Your task to perform on an android device: check google app version Image 0: 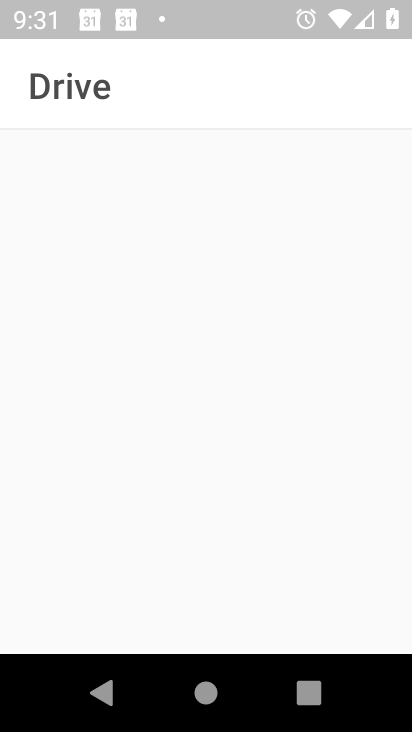
Step 0: press back button
Your task to perform on an android device: check google app version Image 1: 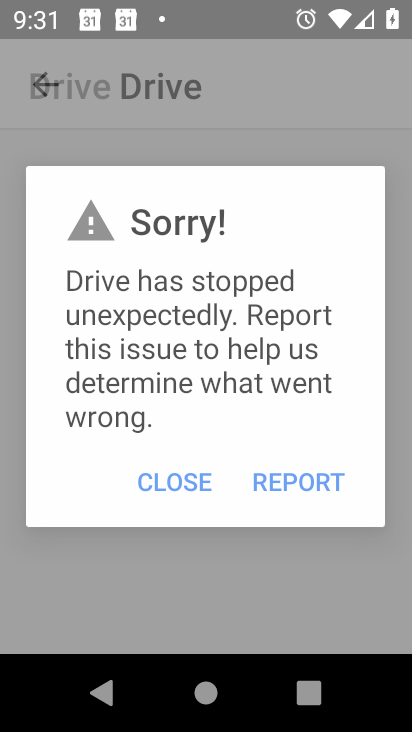
Step 1: press back button
Your task to perform on an android device: check google app version Image 2: 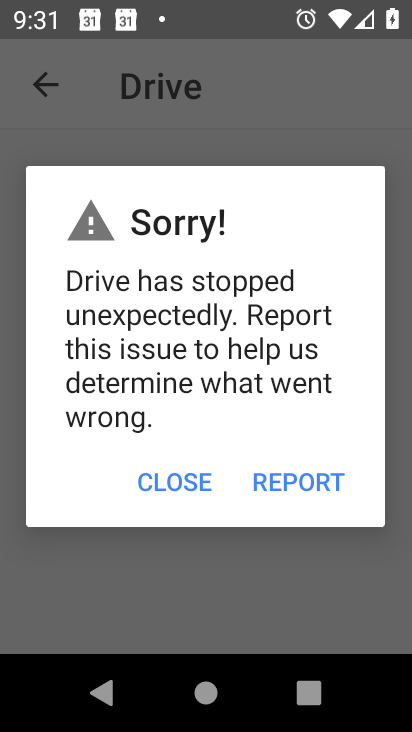
Step 2: click (179, 477)
Your task to perform on an android device: check google app version Image 3: 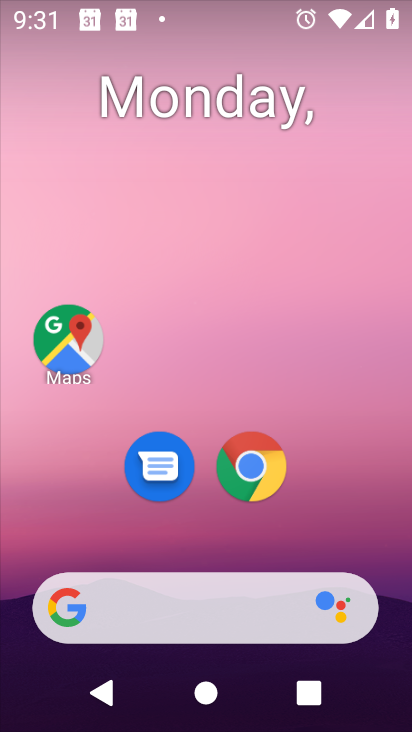
Step 3: drag from (388, 643) to (187, 15)
Your task to perform on an android device: check google app version Image 4: 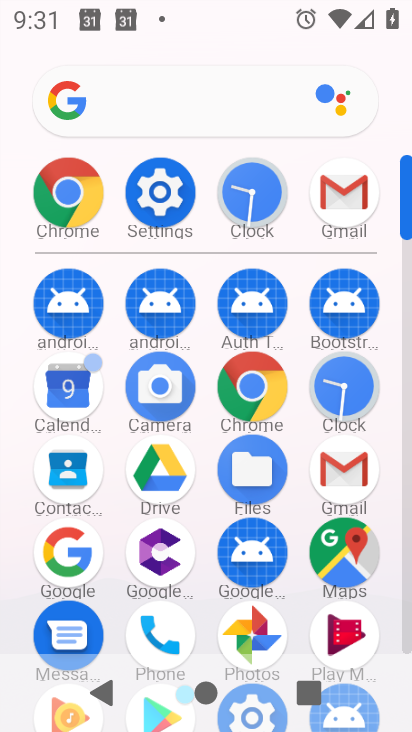
Step 4: drag from (200, 609) to (156, 140)
Your task to perform on an android device: check google app version Image 5: 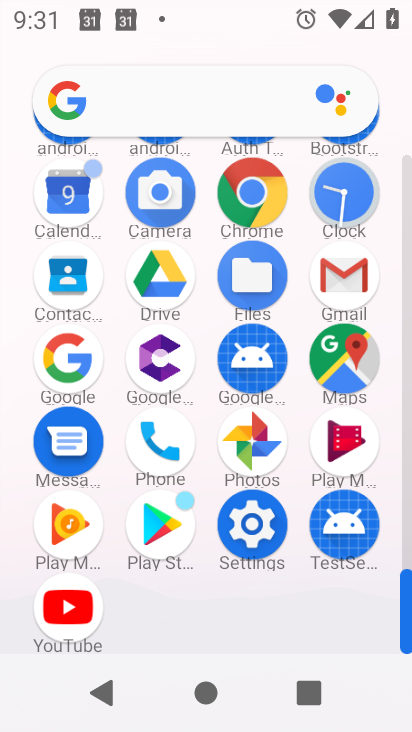
Step 5: drag from (198, 435) to (159, 100)
Your task to perform on an android device: check google app version Image 6: 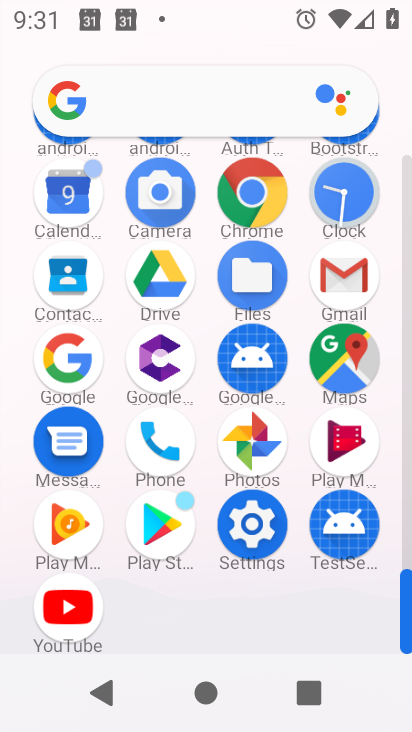
Step 6: click (65, 352)
Your task to perform on an android device: check google app version Image 7: 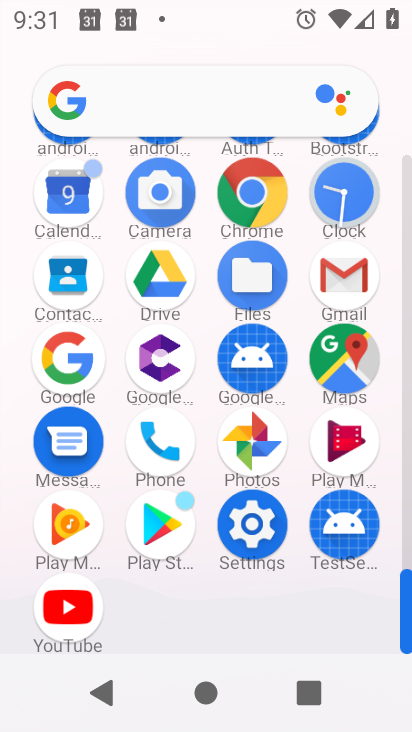
Step 7: click (65, 352)
Your task to perform on an android device: check google app version Image 8: 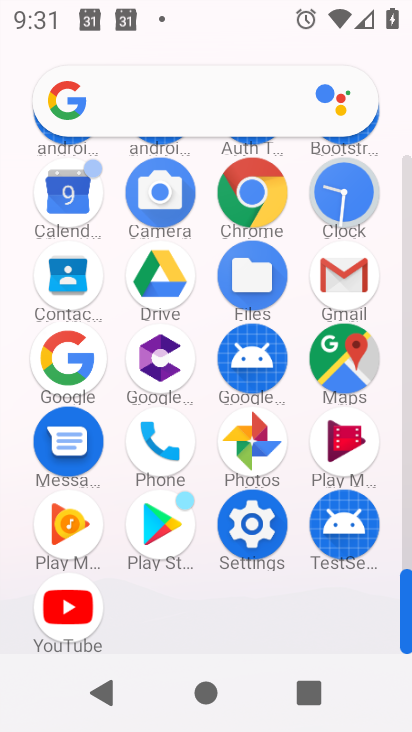
Step 8: click (67, 351)
Your task to perform on an android device: check google app version Image 9: 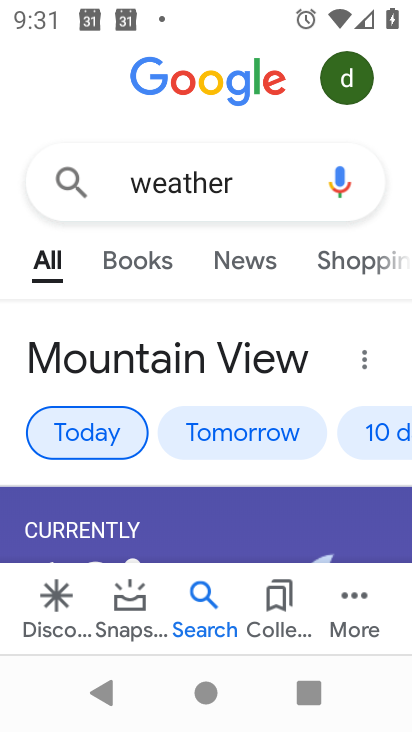
Step 9: click (340, 591)
Your task to perform on an android device: check google app version Image 10: 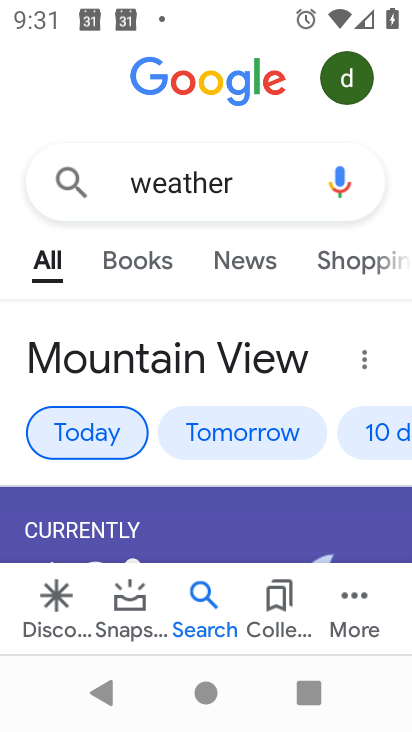
Step 10: click (340, 591)
Your task to perform on an android device: check google app version Image 11: 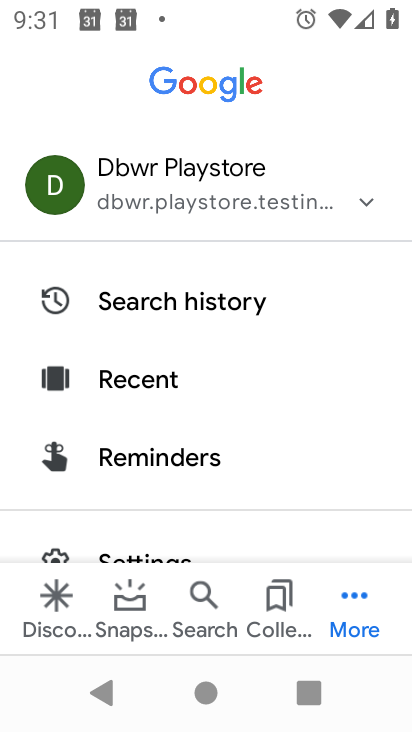
Step 11: click (355, 597)
Your task to perform on an android device: check google app version Image 12: 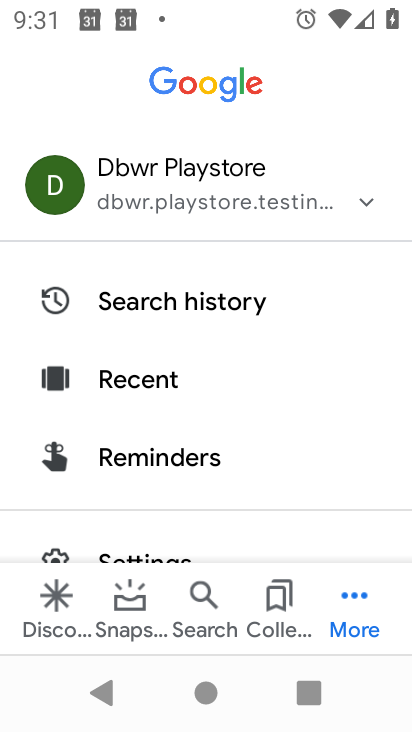
Step 12: click (345, 612)
Your task to perform on an android device: check google app version Image 13: 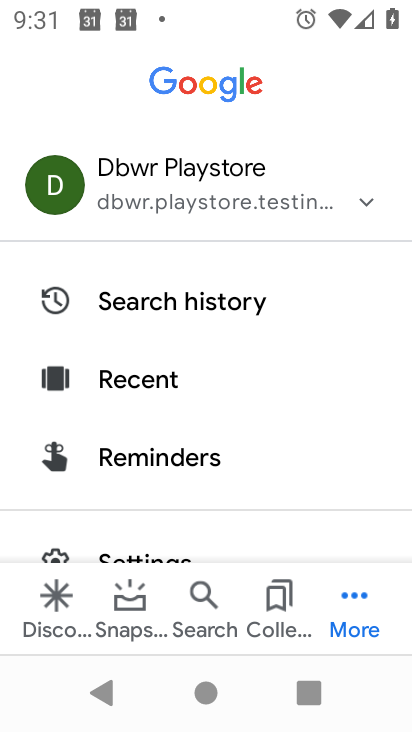
Step 13: click (345, 612)
Your task to perform on an android device: check google app version Image 14: 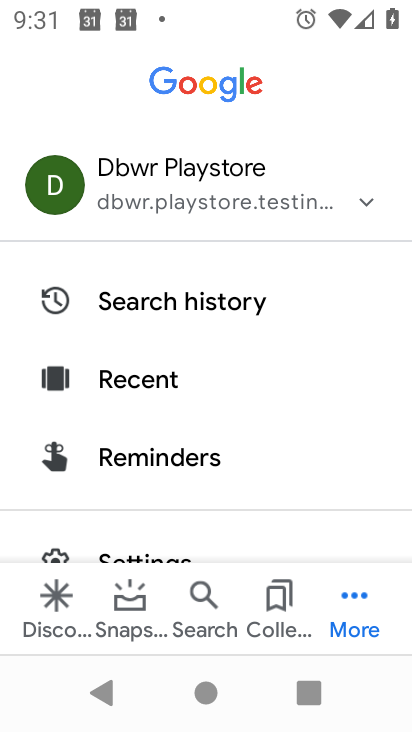
Step 14: drag from (196, 423) to (192, 104)
Your task to perform on an android device: check google app version Image 15: 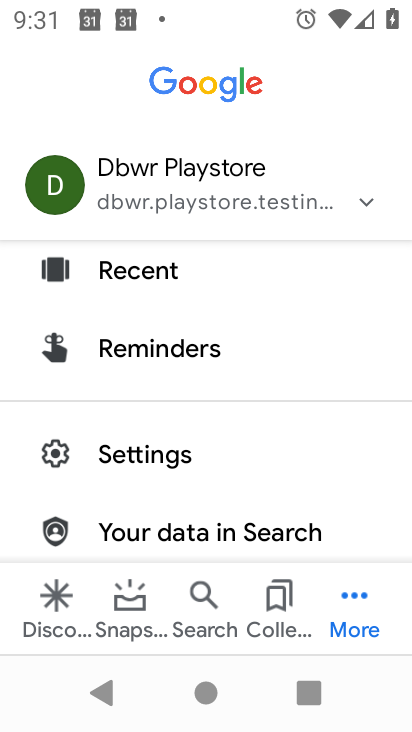
Step 15: drag from (277, 343) to (259, 133)
Your task to perform on an android device: check google app version Image 16: 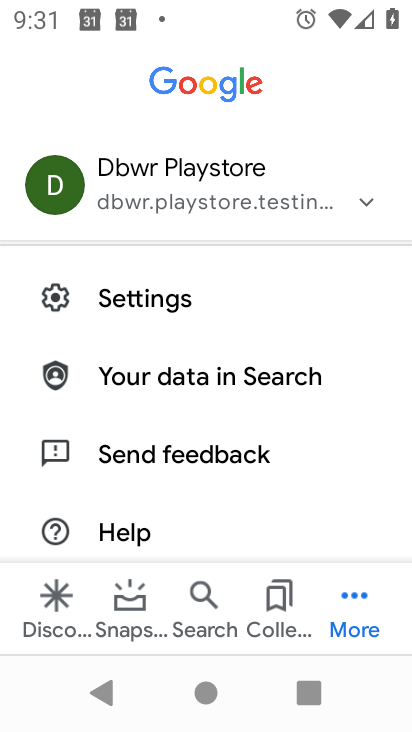
Step 16: drag from (157, 340) to (189, 609)
Your task to perform on an android device: check google app version Image 17: 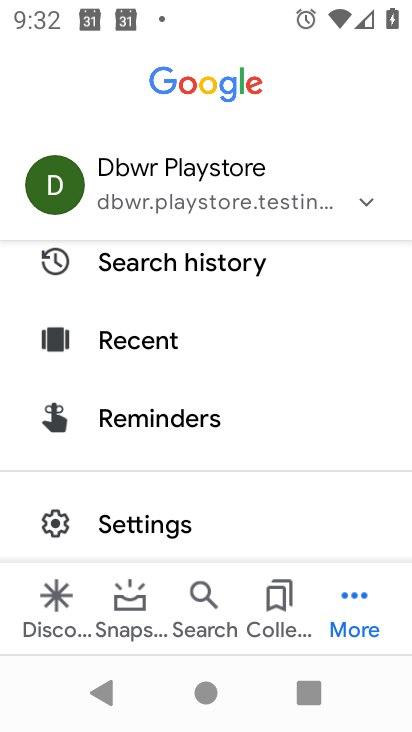
Step 17: click (128, 522)
Your task to perform on an android device: check google app version Image 18: 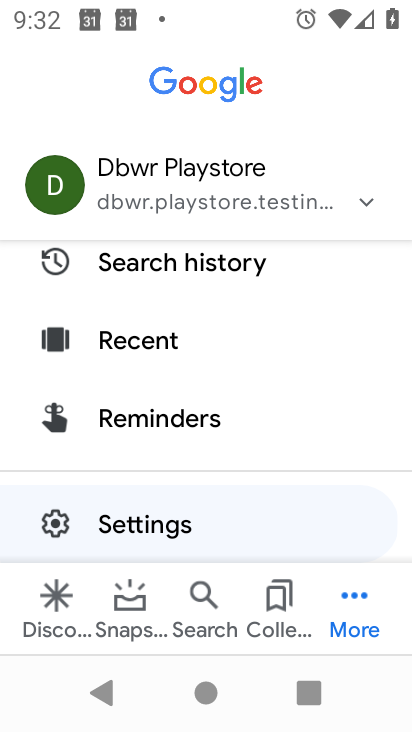
Step 18: click (128, 522)
Your task to perform on an android device: check google app version Image 19: 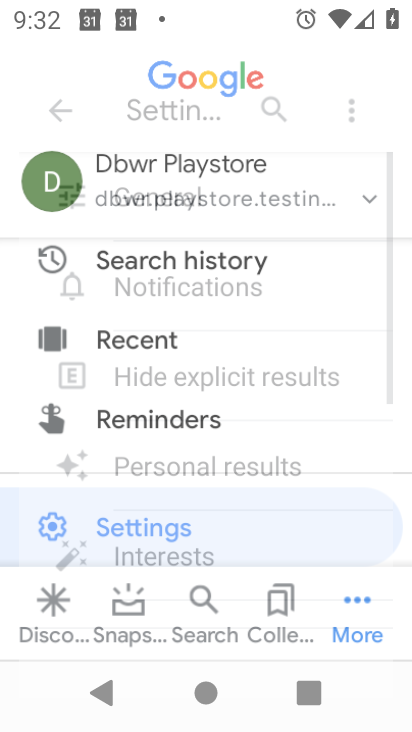
Step 19: click (128, 522)
Your task to perform on an android device: check google app version Image 20: 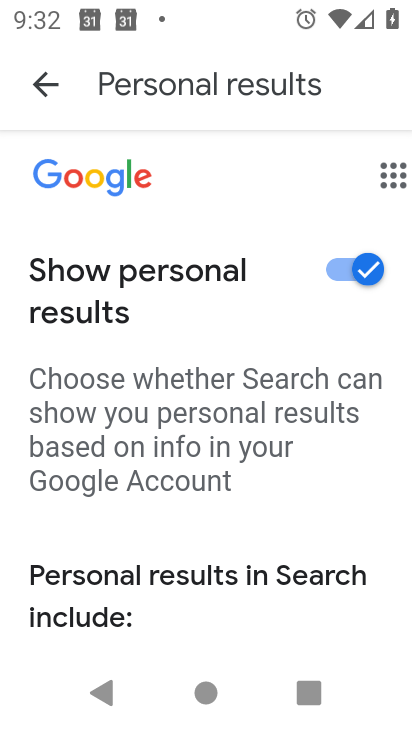
Step 20: click (42, 76)
Your task to perform on an android device: check google app version Image 21: 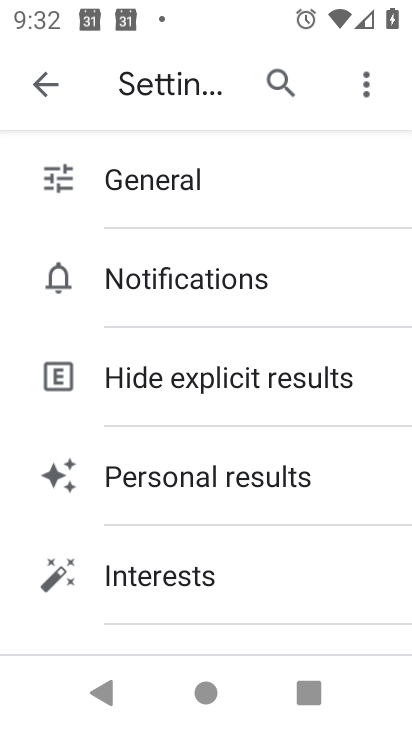
Step 21: drag from (198, 514) to (211, 147)
Your task to perform on an android device: check google app version Image 22: 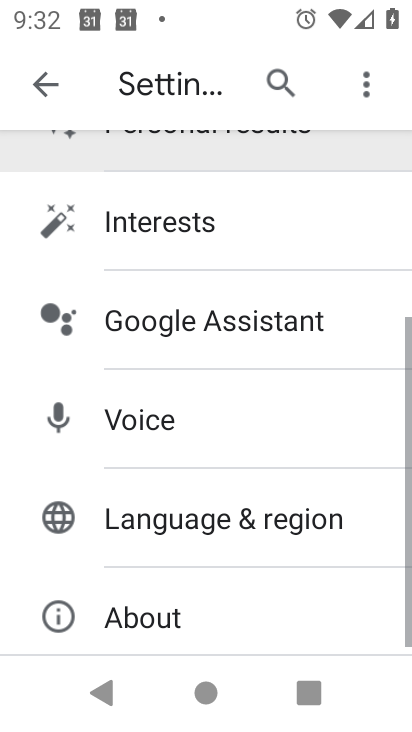
Step 22: drag from (214, 403) to (169, 62)
Your task to perform on an android device: check google app version Image 23: 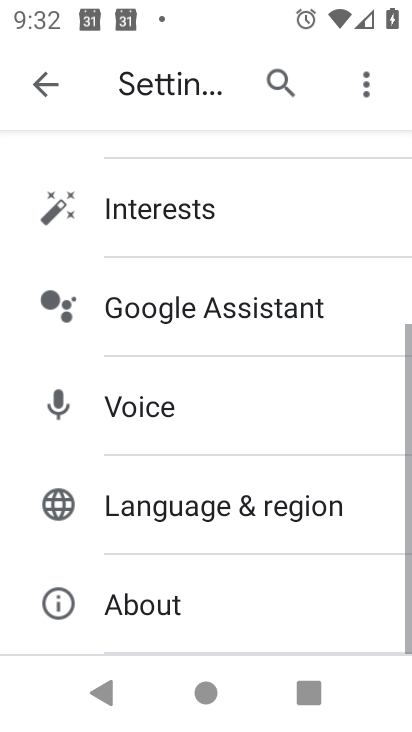
Step 23: click (153, 608)
Your task to perform on an android device: check google app version Image 24: 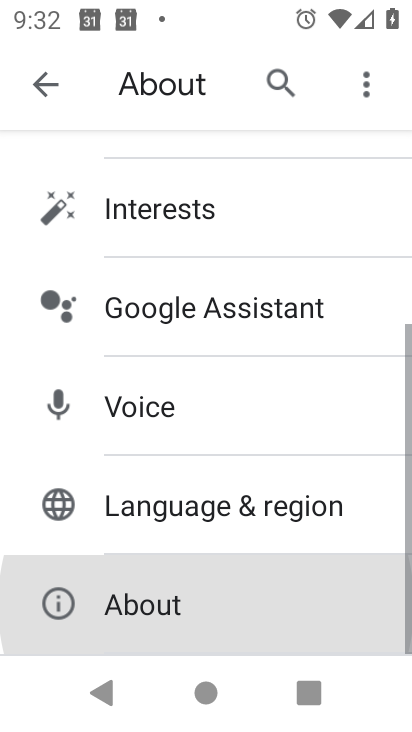
Step 24: click (153, 608)
Your task to perform on an android device: check google app version Image 25: 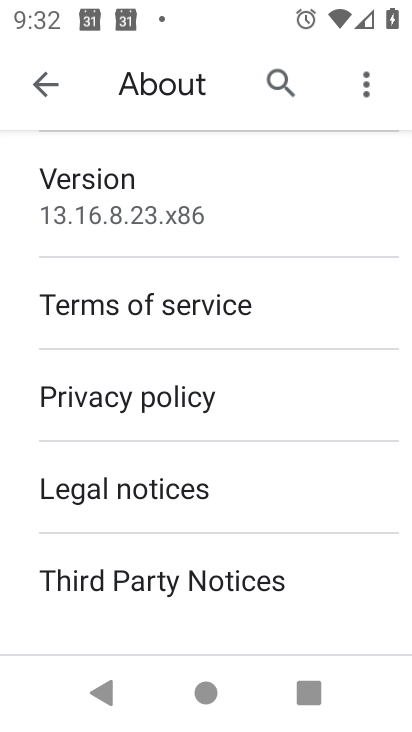
Step 25: click (153, 608)
Your task to perform on an android device: check google app version Image 26: 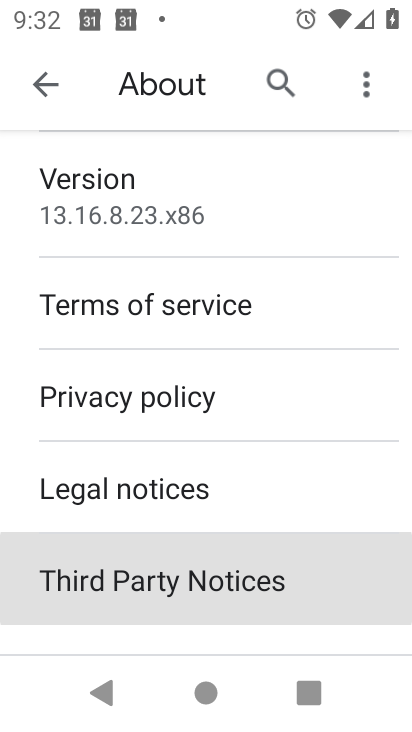
Step 26: click (153, 608)
Your task to perform on an android device: check google app version Image 27: 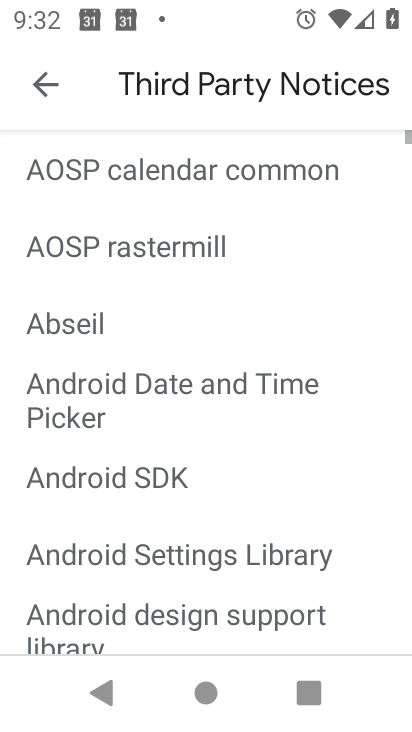
Step 27: click (48, 85)
Your task to perform on an android device: check google app version Image 28: 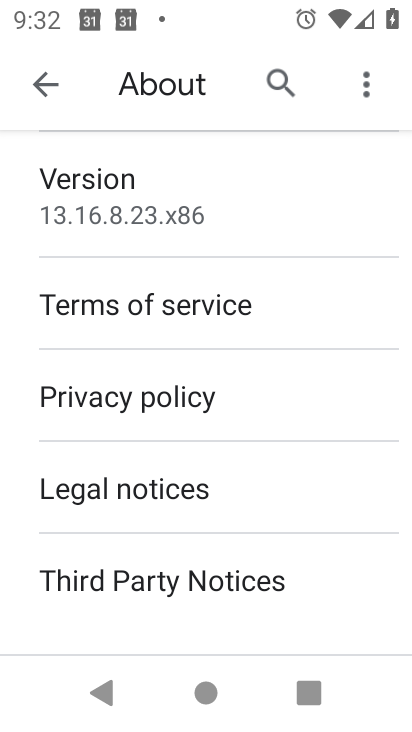
Step 28: task complete